Your task to perform on an android device: show emergency info Image 0: 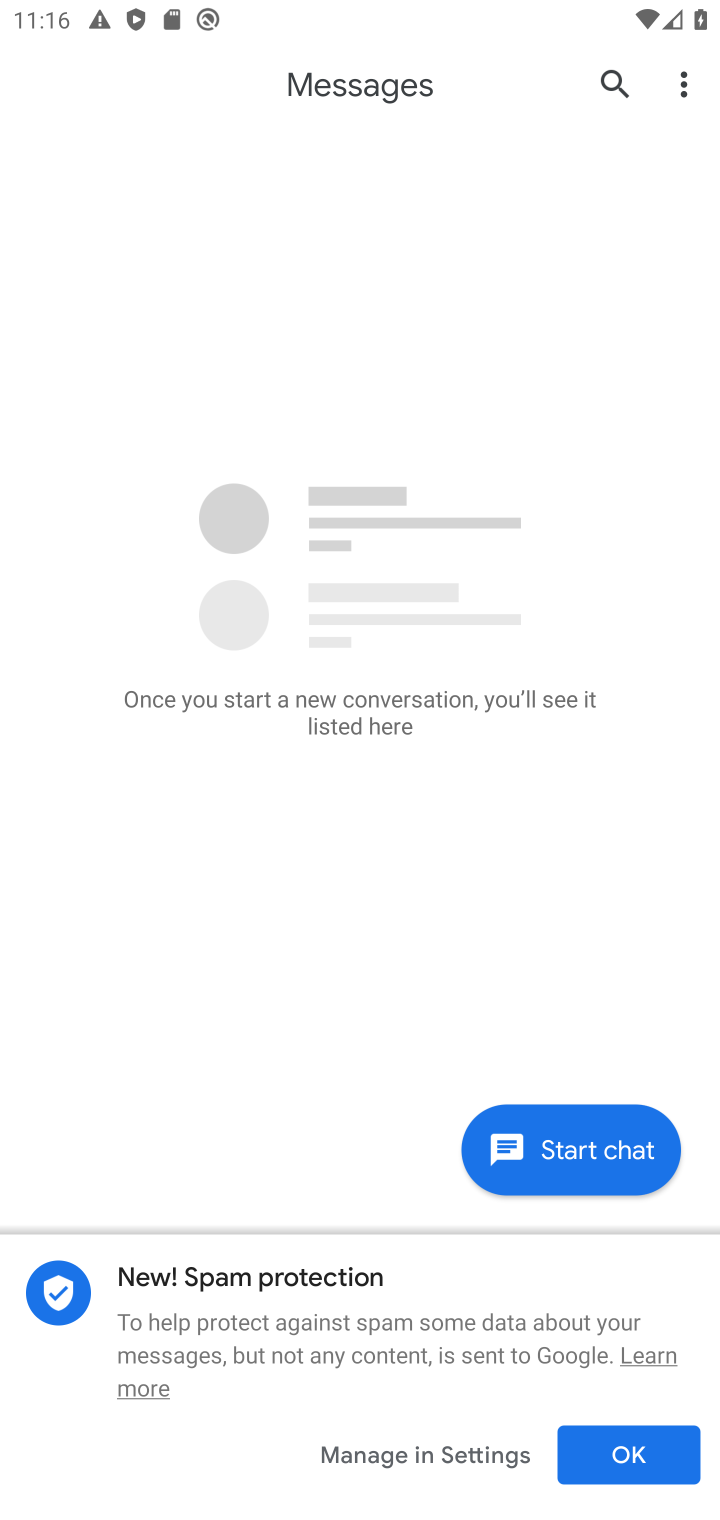
Step 0: click (46, 78)
Your task to perform on an android device: show emergency info Image 1: 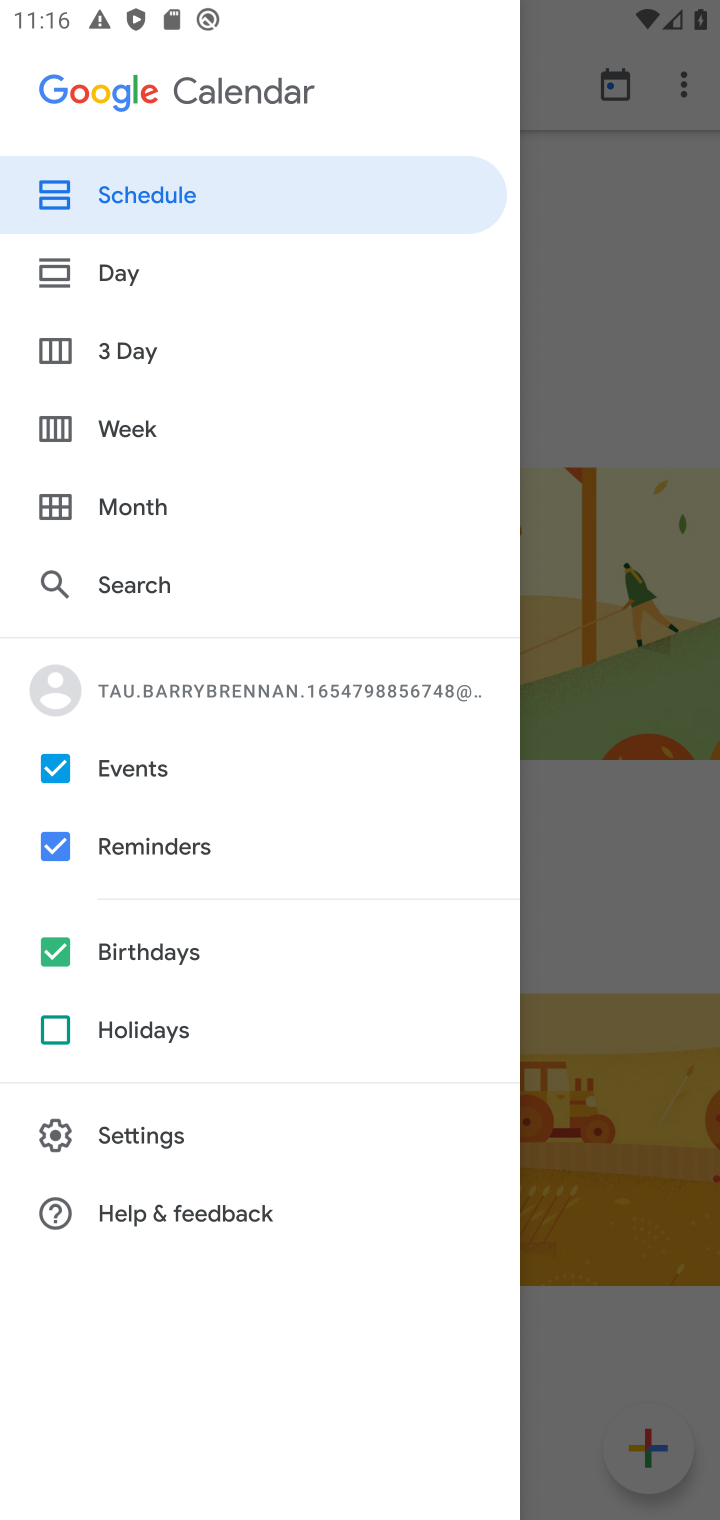
Step 1: press home button
Your task to perform on an android device: show emergency info Image 2: 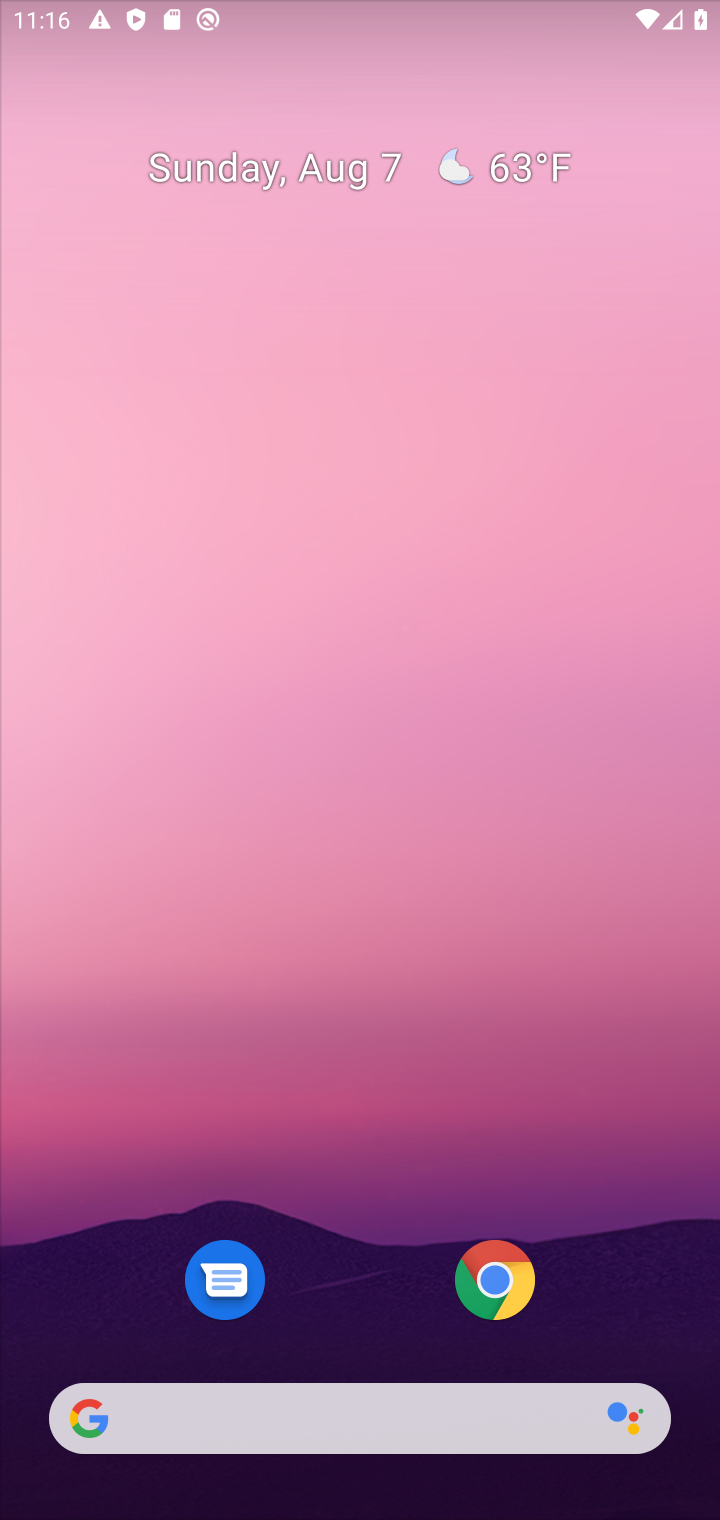
Step 2: press home button
Your task to perform on an android device: show emergency info Image 3: 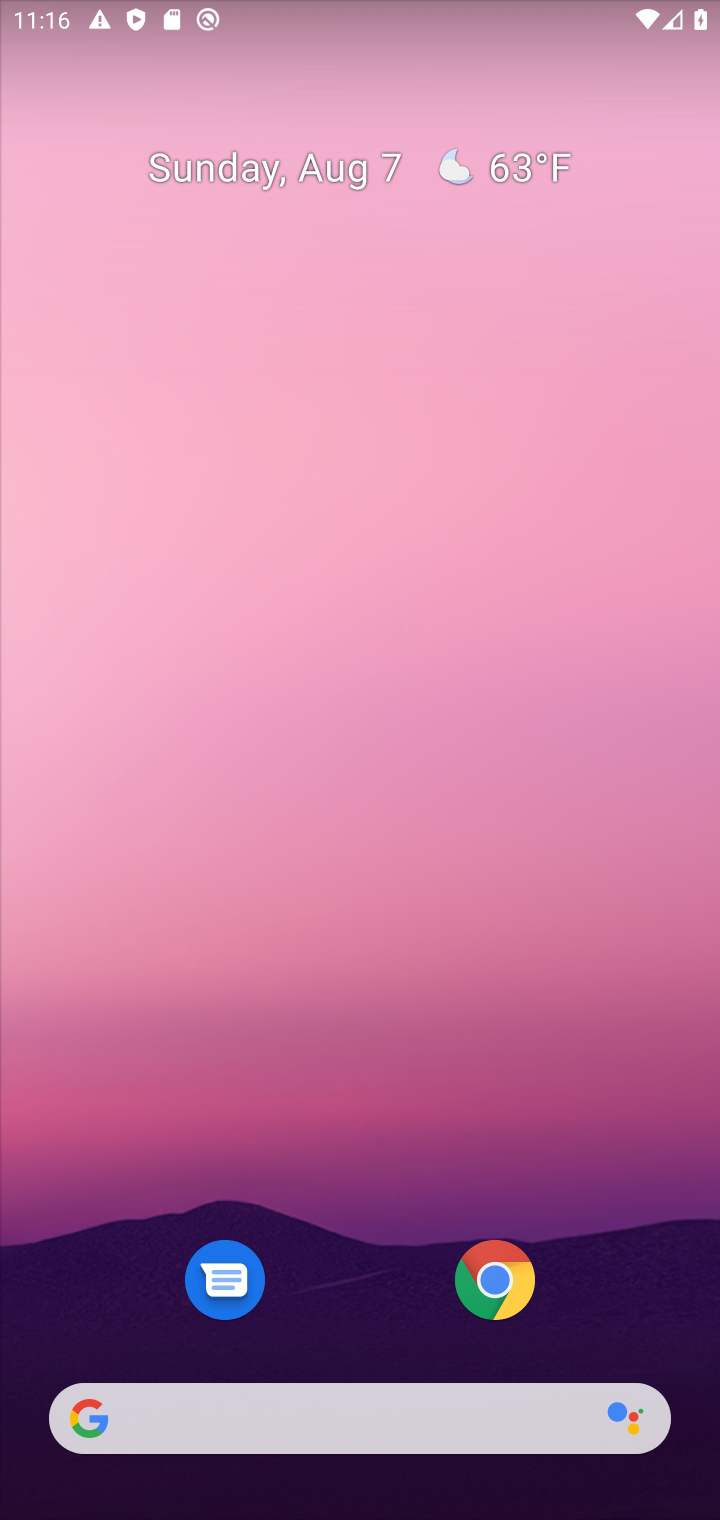
Step 3: drag from (352, 1059) to (334, 147)
Your task to perform on an android device: show emergency info Image 4: 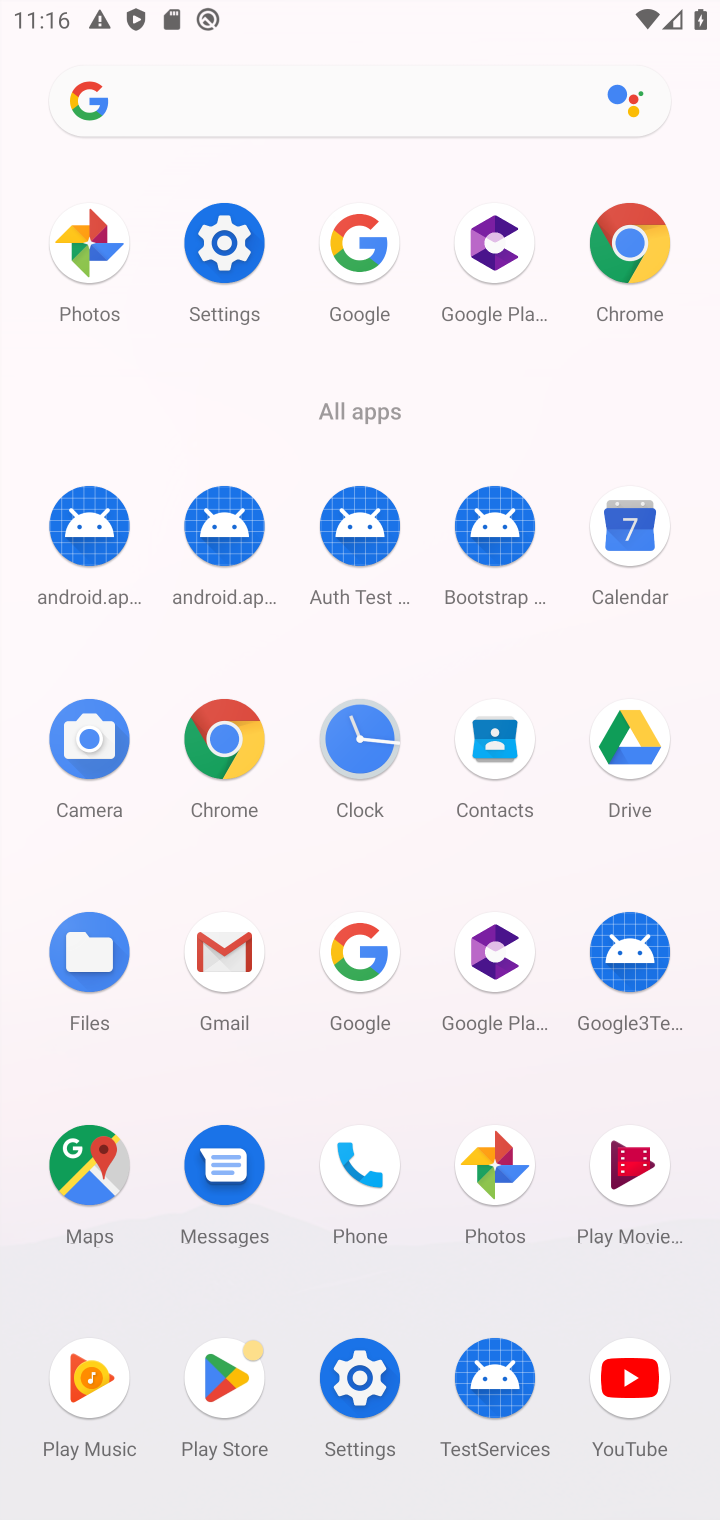
Step 4: click (227, 237)
Your task to perform on an android device: show emergency info Image 5: 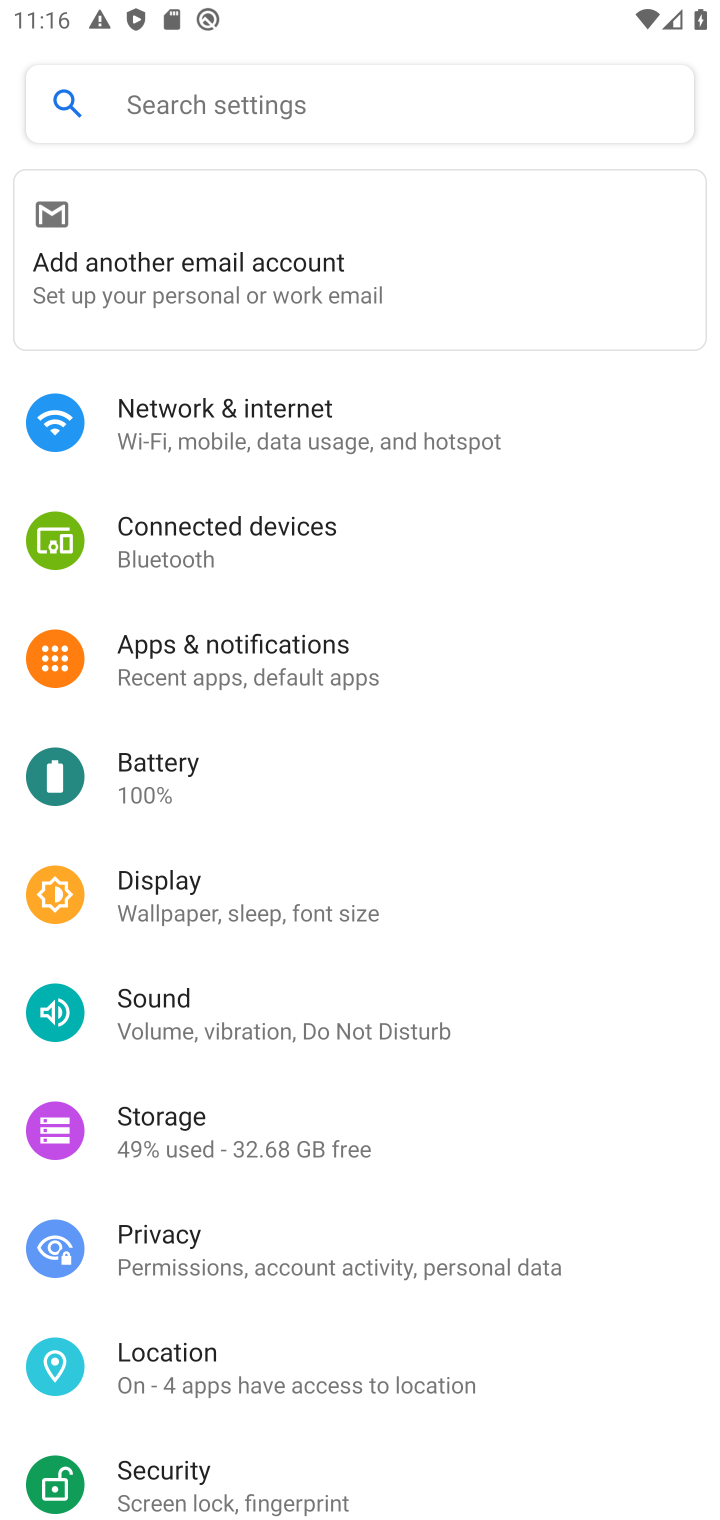
Step 5: drag from (268, 1350) to (268, 1002)
Your task to perform on an android device: show emergency info Image 6: 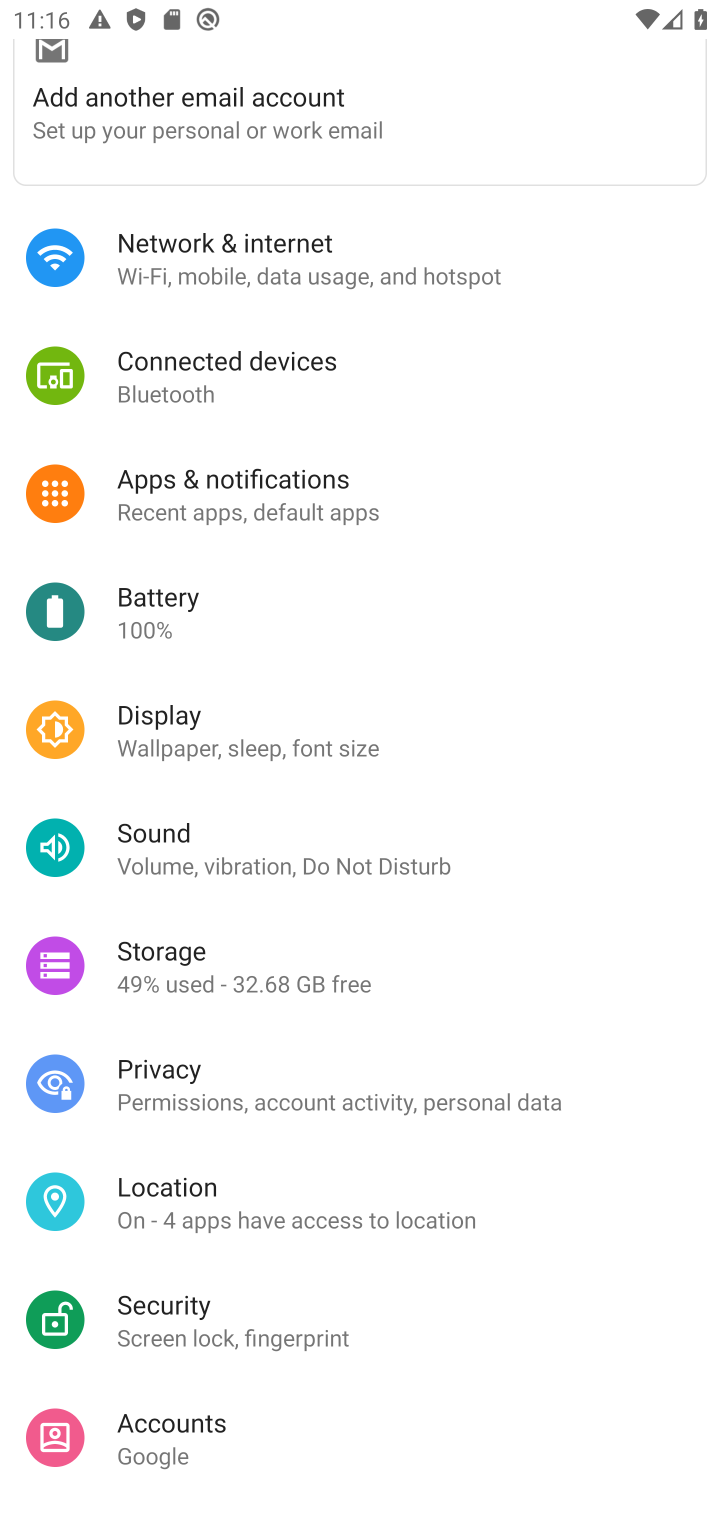
Step 6: drag from (234, 1322) to (237, 623)
Your task to perform on an android device: show emergency info Image 7: 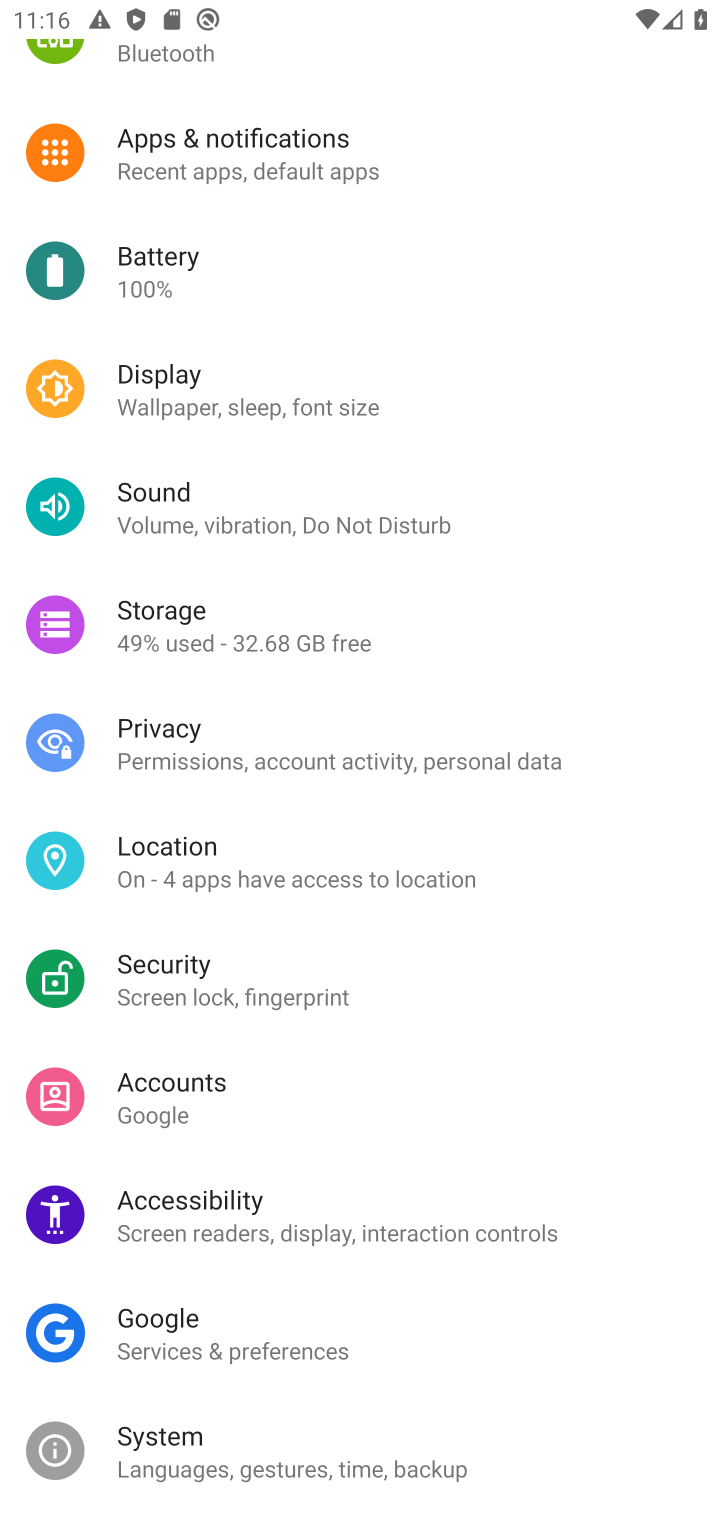
Step 7: drag from (155, 1339) to (162, 657)
Your task to perform on an android device: show emergency info Image 8: 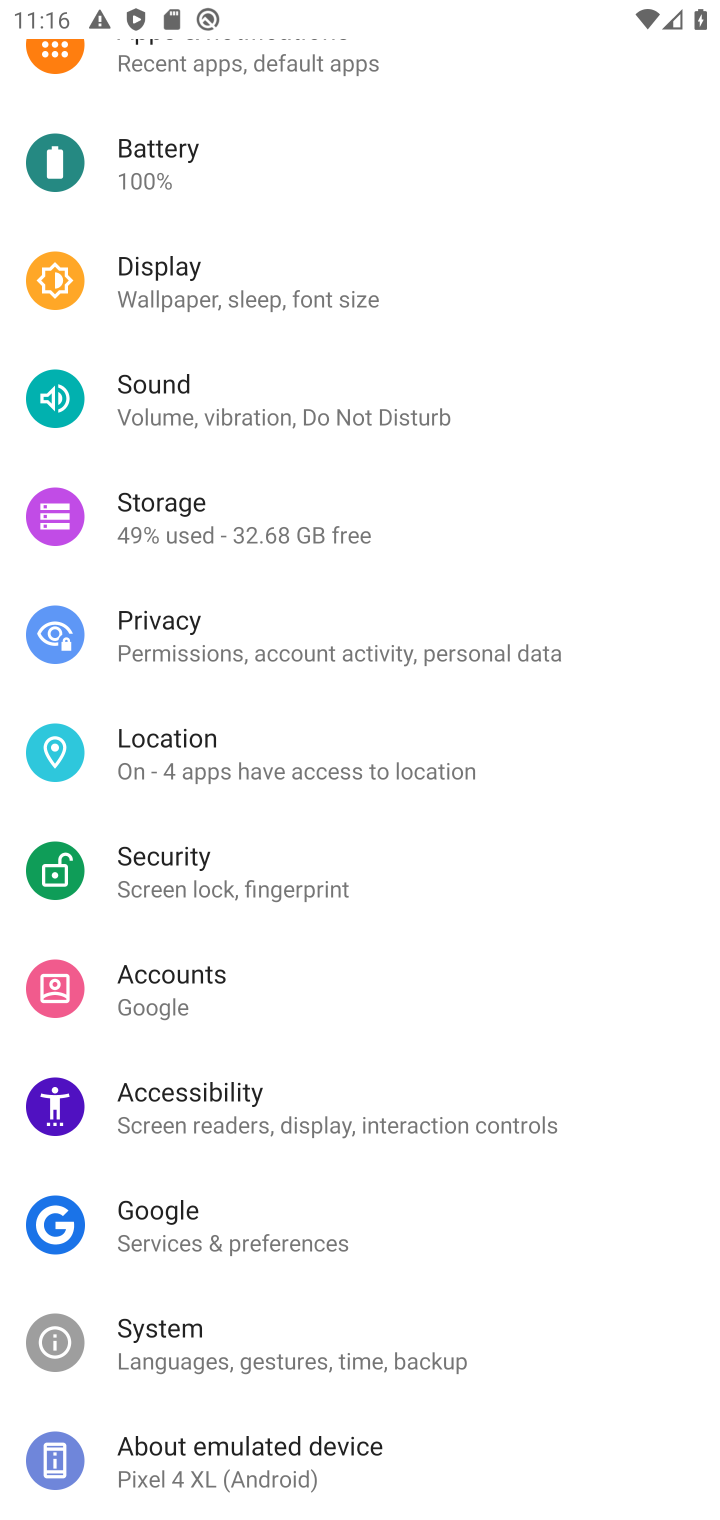
Step 8: click (204, 1462)
Your task to perform on an android device: show emergency info Image 9: 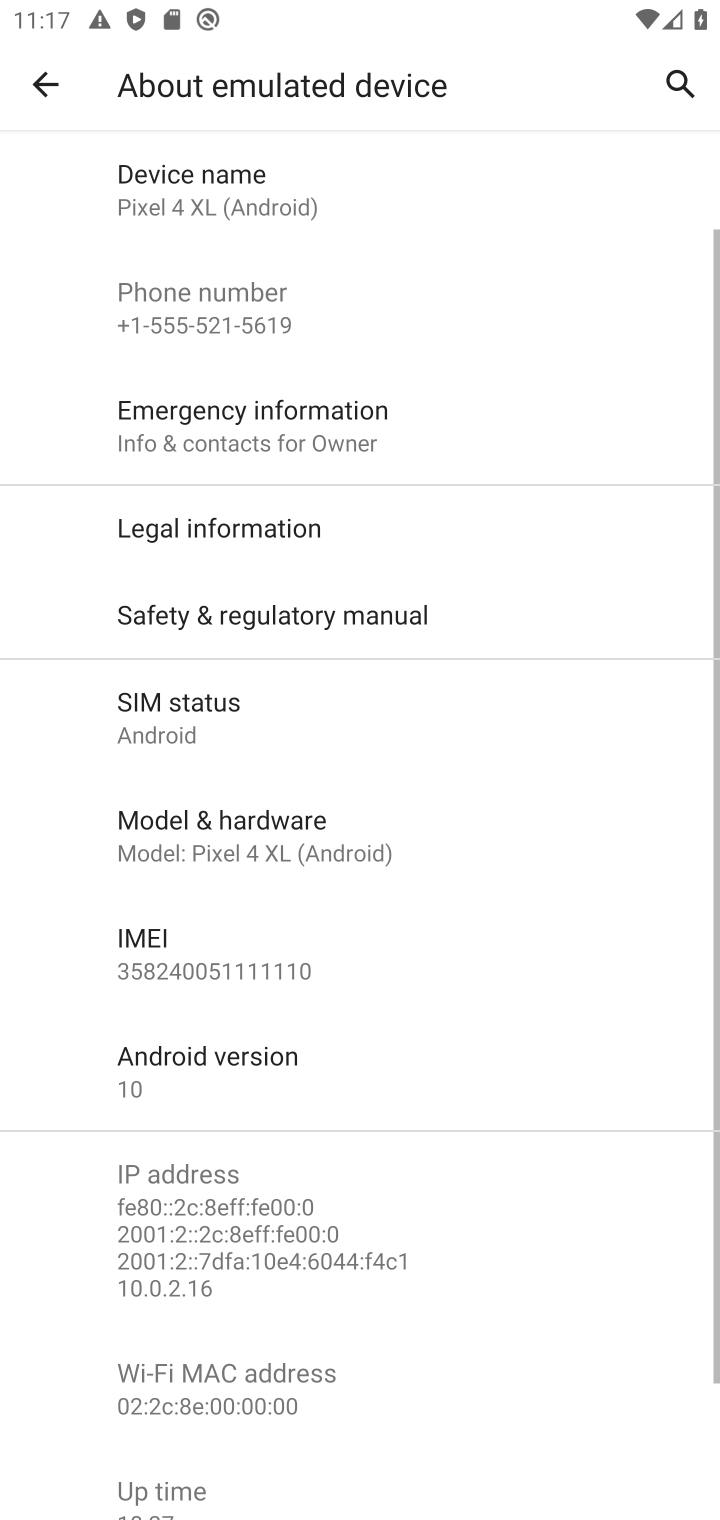
Step 9: drag from (220, 1391) to (181, 483)
Your task to perform on an android device: show emergency info Image 10: 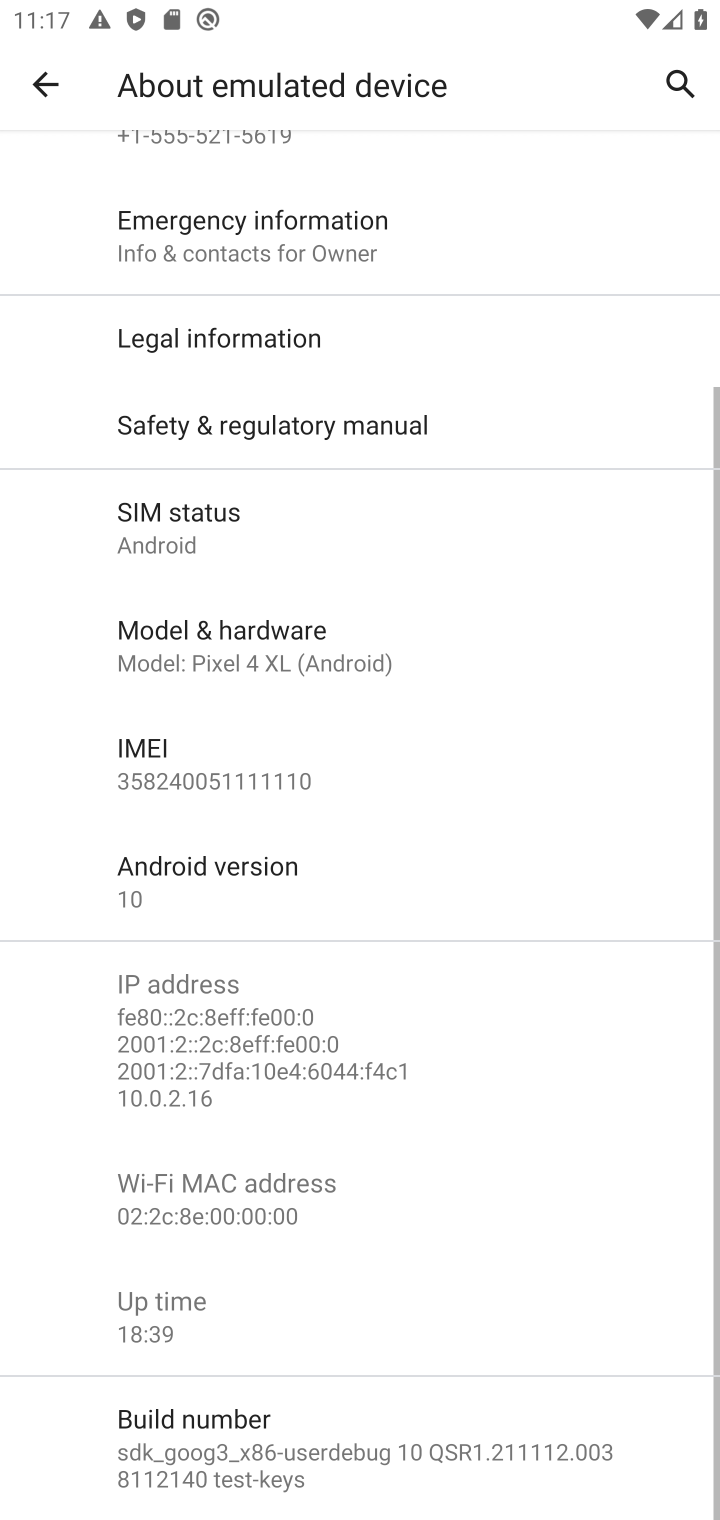
Step 10: click (318, 230)
Your task to perform on an android device: show emergency info Image 11: 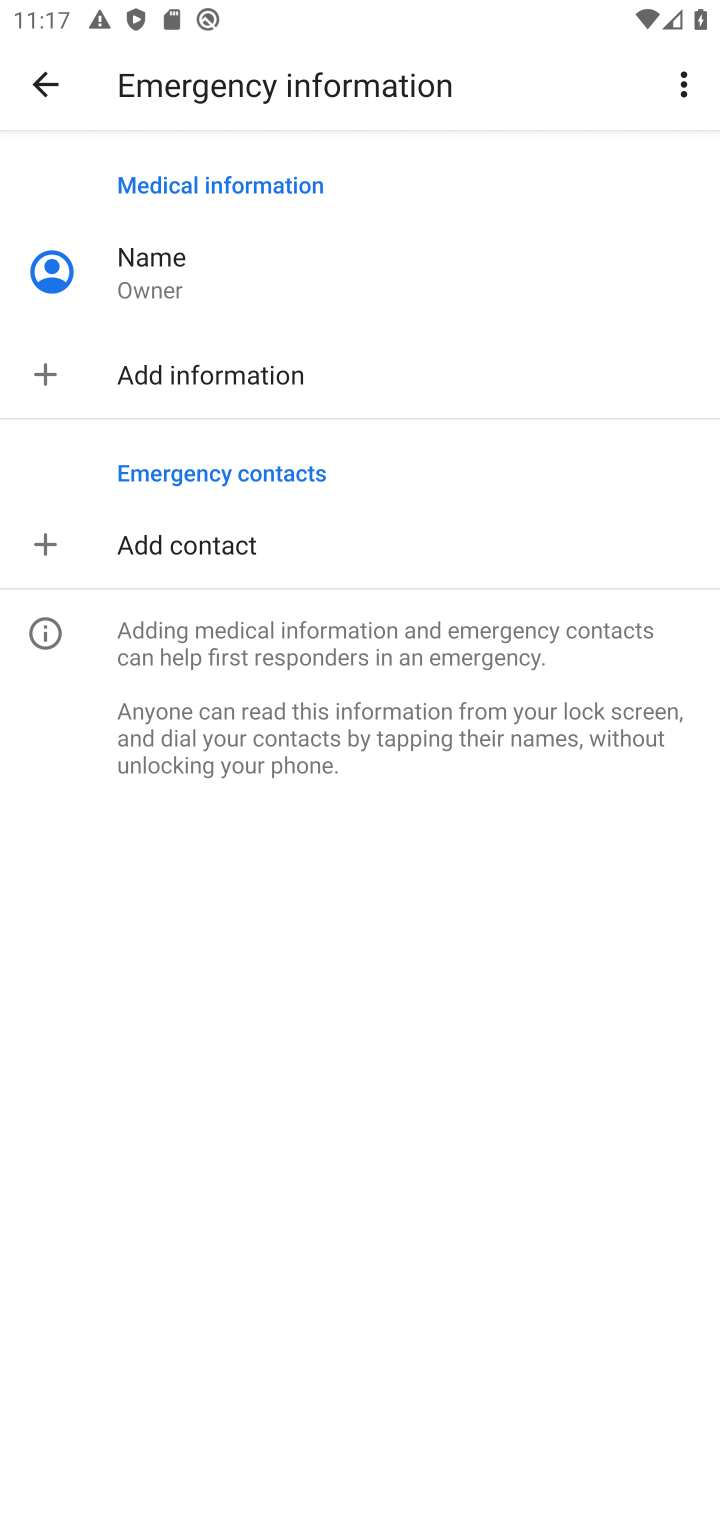
Step 11: task complete